Your task to perform on an android device: turn off improve location accuracy Image 0: 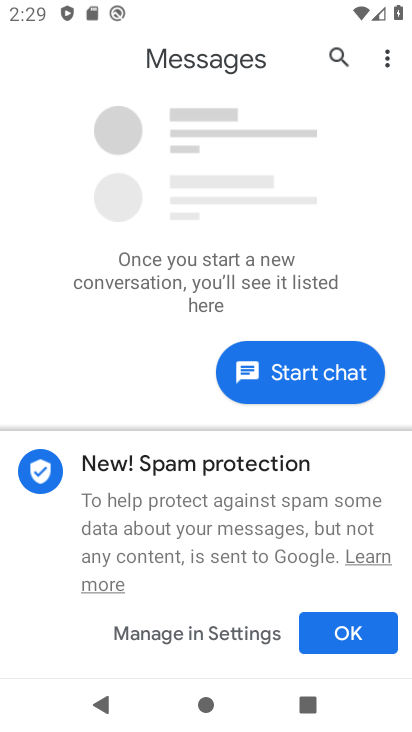
Step 0: press home button
Your task to perform on an android device: turn off improve location accuracy Image 1: 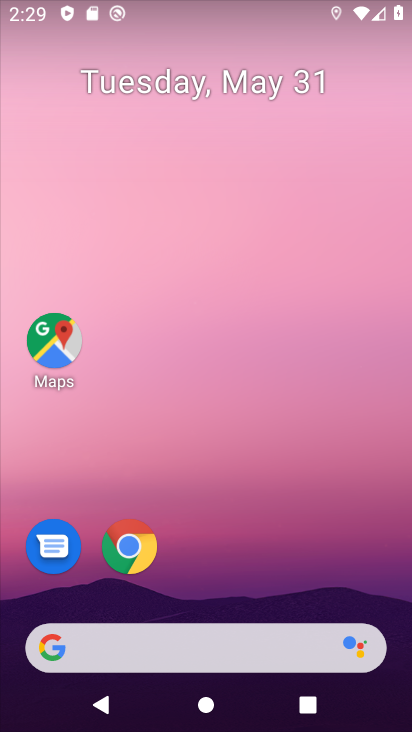
Step 1: drag from (253, 539) to (260, 60)
Your task to perform on an android device: turn off improve location accuracy Image 2: 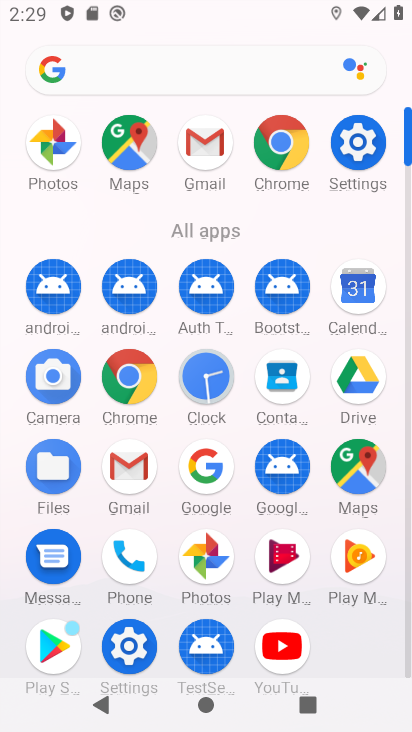
Step 2: click (349, 140)
Your task to perform on an android device: turn off improve location accuracy Image 3: 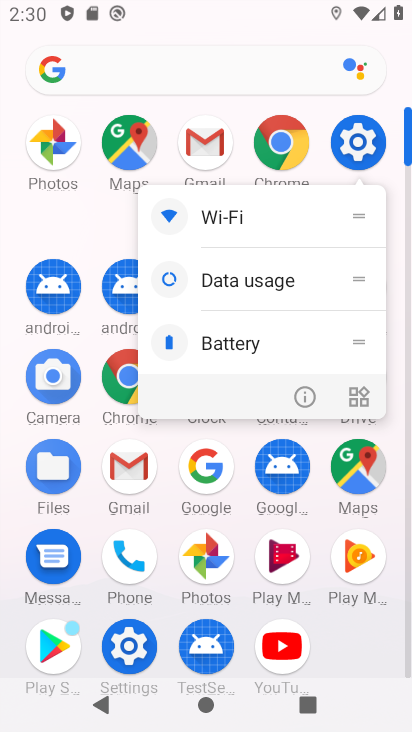
Step 3: click (349, 140)
Your task to perform on an android device: turn off improve location accuracy Image 4: 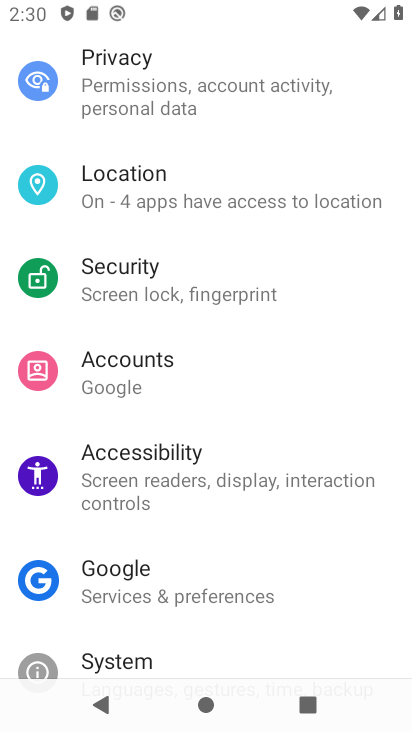
Step 4: click (278, 189)
Your task to perform on an android device: turn off improve location accuracy Image 5: 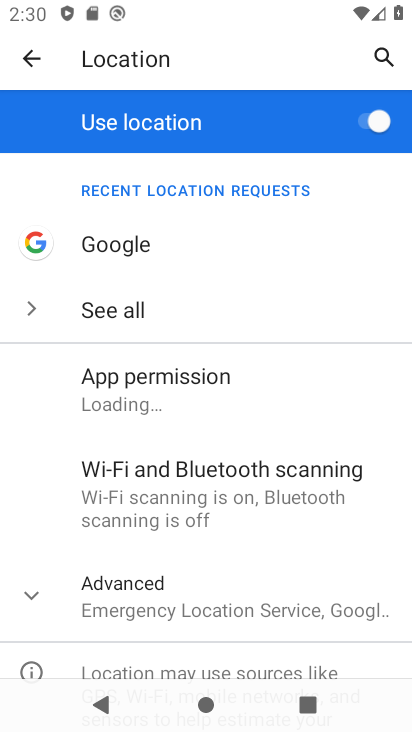
Step 5: click (33, 592)
Your task to perform on an android device: turn off improve location accuracy Image 6: 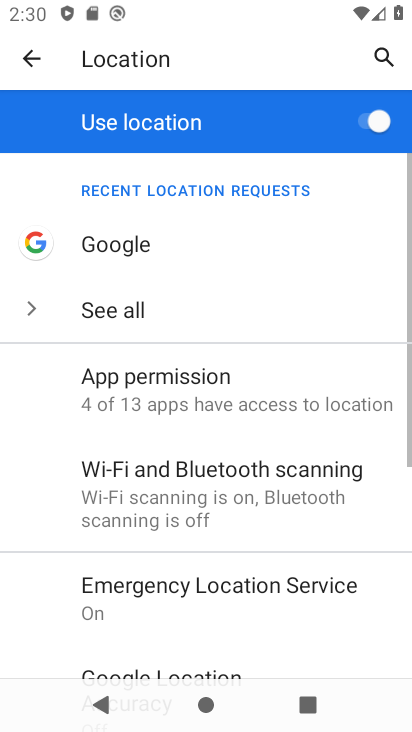
Step 6: drag from (231, 554) to (304, 213)
Your task to perform on an android device: turn off improve location accuracy Image 7: 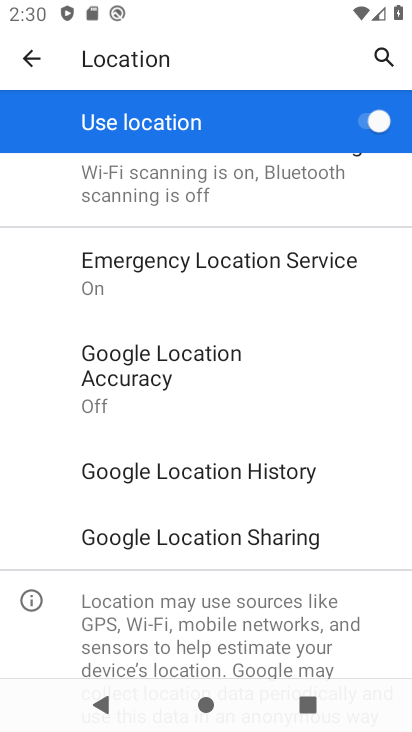
Step 7: click (260, 354)
Your task to perform on an android device: turn off improve location accuracy Image 8: 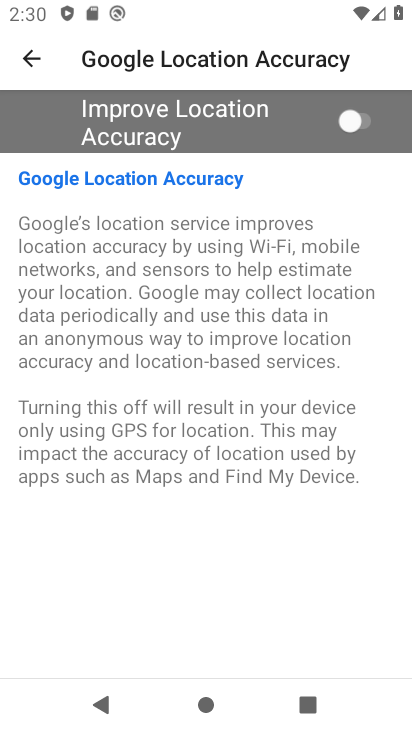
Step 8: task complete